Your task to perform on an android device: open device folders in google photos Image 0: 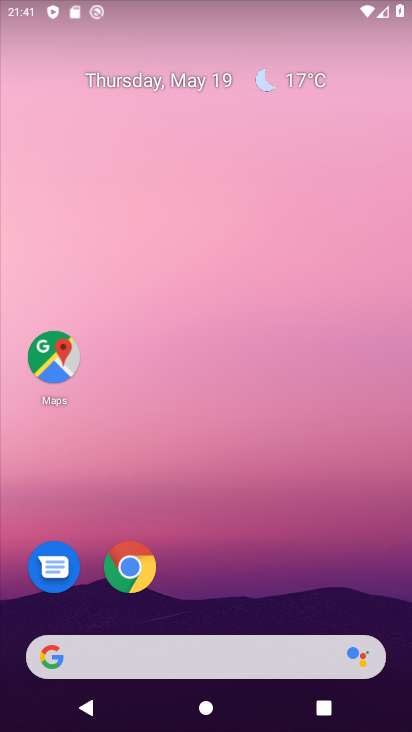
Step 0: drag from (318, 521) to (253, 75)
Your task to perform on an android device: open device folders in google photos Image 1: 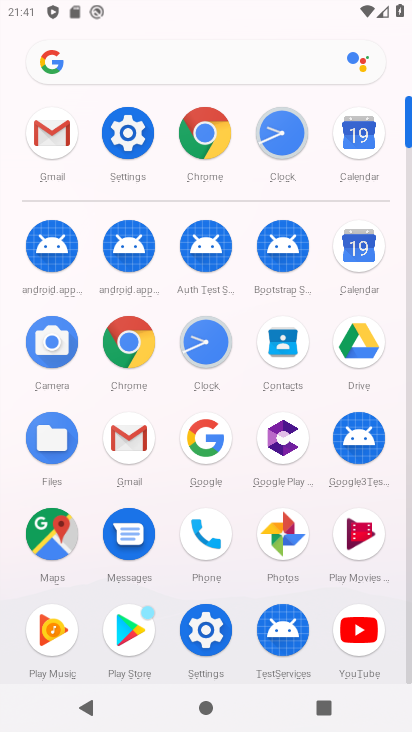
Step 1: click (284, 535)
Your task to perform on an android device: open device folders in google photos Image 2: 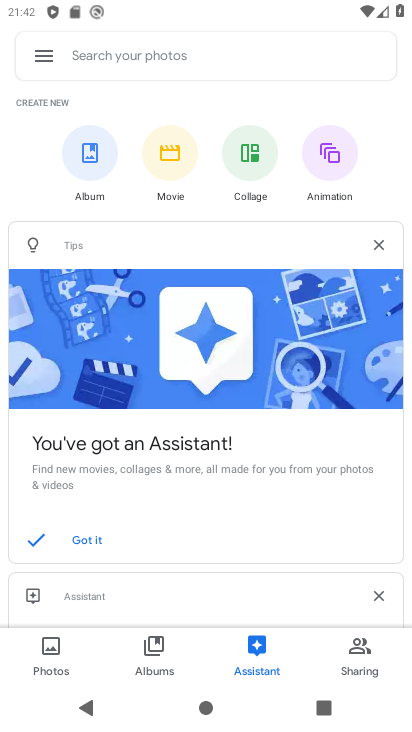
Step 2: click (43, 58)
Your task to perform on an android device: open device folders in google photos Image 3: 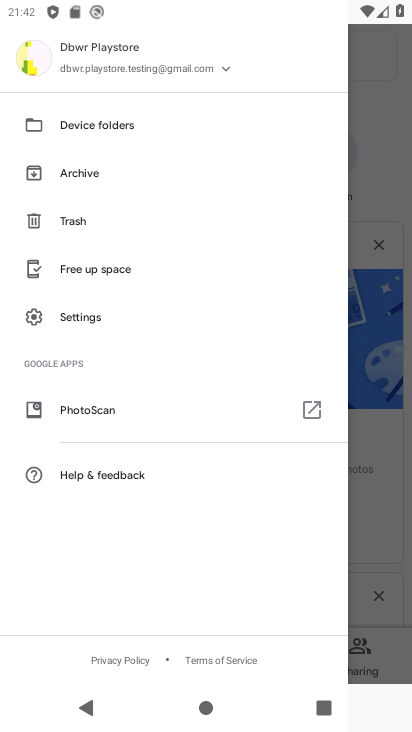
Step 3: click (103, 123)
Your task to perform on an android device: open device folders in google photos Image 4: 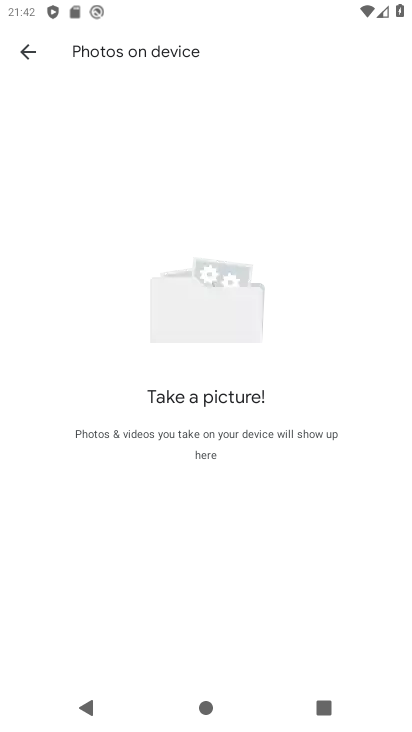
Step 4: task complete